Your task to perform on an android device: Open Yahoo.com Image 0: 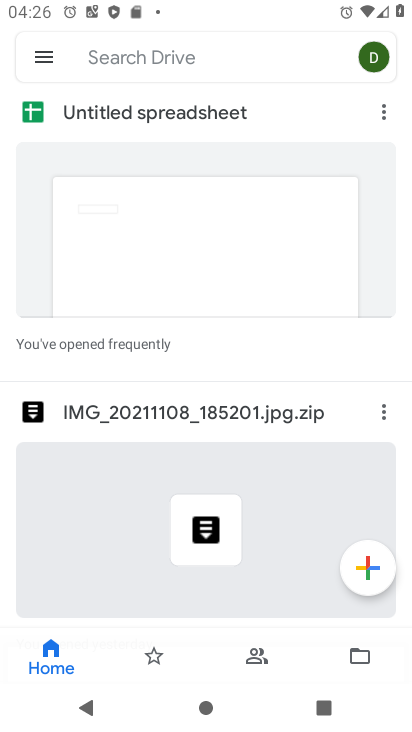
Step 0: press home button
Your task to perform on an android device: Open Yahoo.com Image 1: 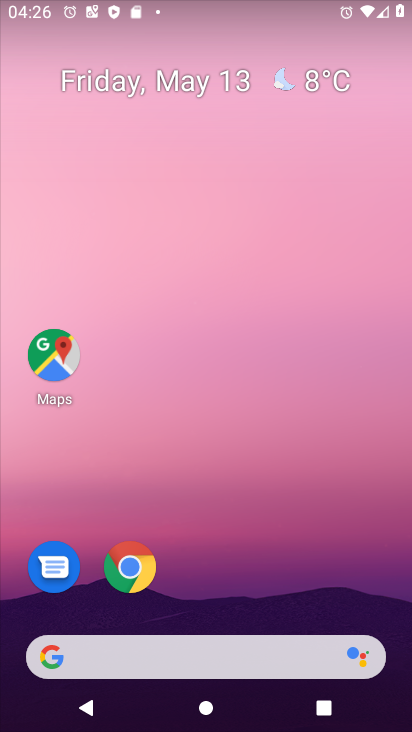
Step 1: click (131, 568)
Your task to perform on an android device: Open Yahoo.com Image 2: 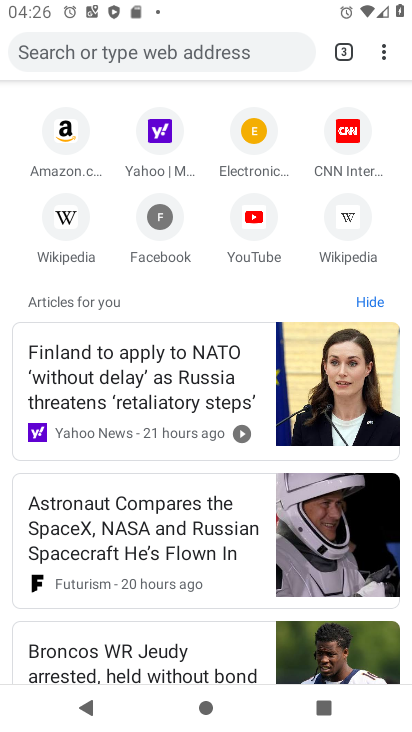
Step 2: click (167, 134)
Your task to perform on an android device: Open Yahoo.com Image 3: 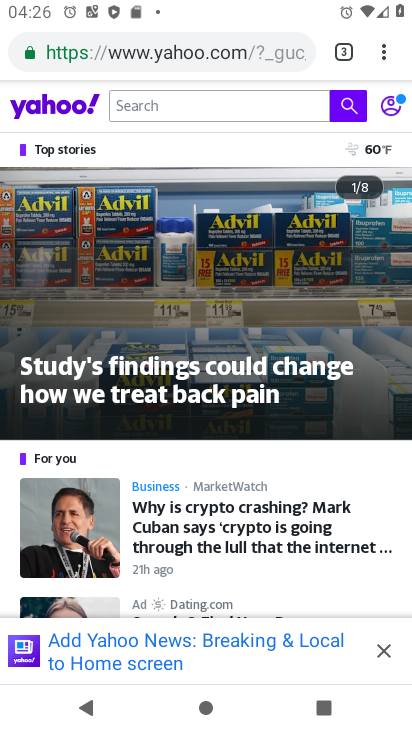
Step 3: task complete